Your task to perform on an android device: Open the map Image 0: 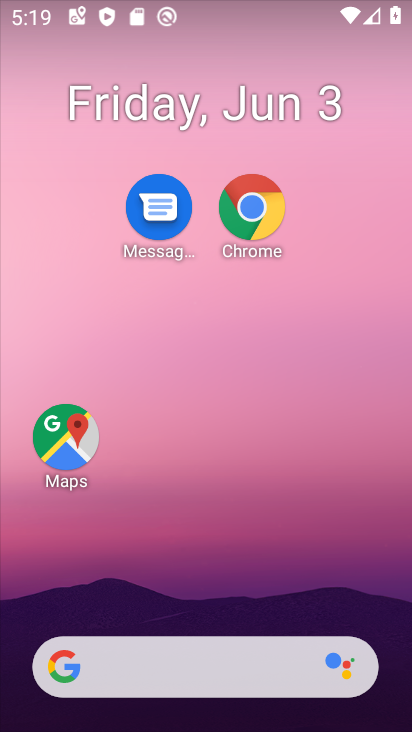
Step 0: click (65, 443)
Your task to perform on an android device: Open the map Image 1: 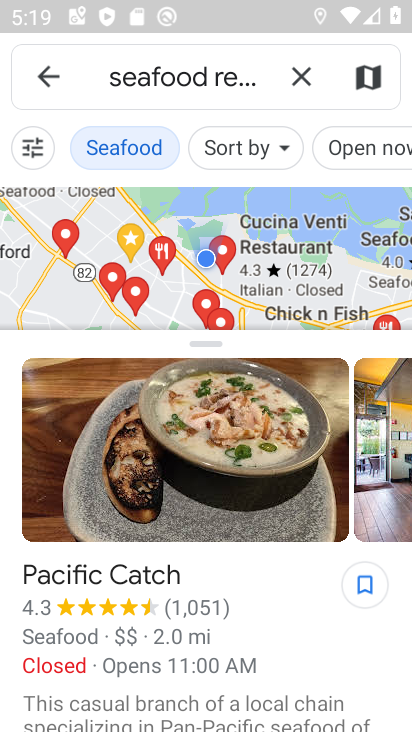
Step 1: task complete